Your task to perform on an android device: open sync settings in chrome Image 0: 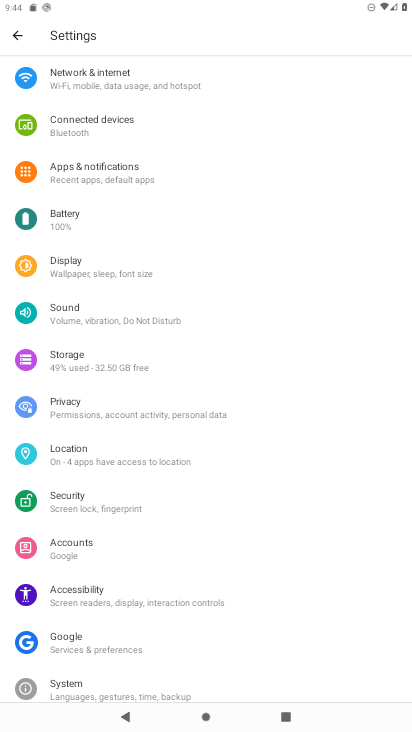
Step 0: press home button
Your task to perform on an android device: open sync settings in chrome Image 1: 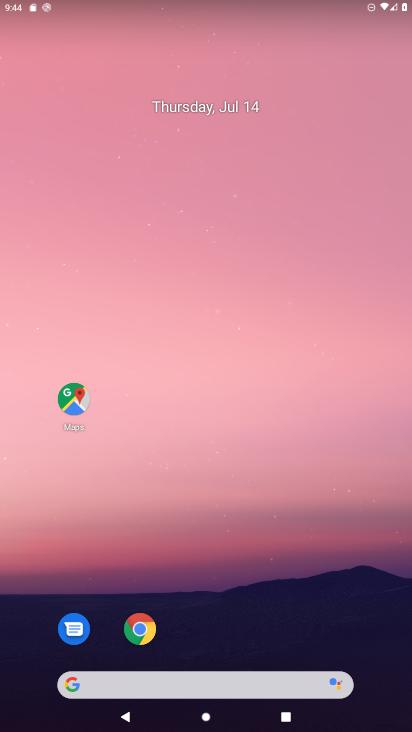
Step 1: drag from (221, 642) to (314, 102)
Your task to perform on an android device: open sync settings in chrome Image 2: 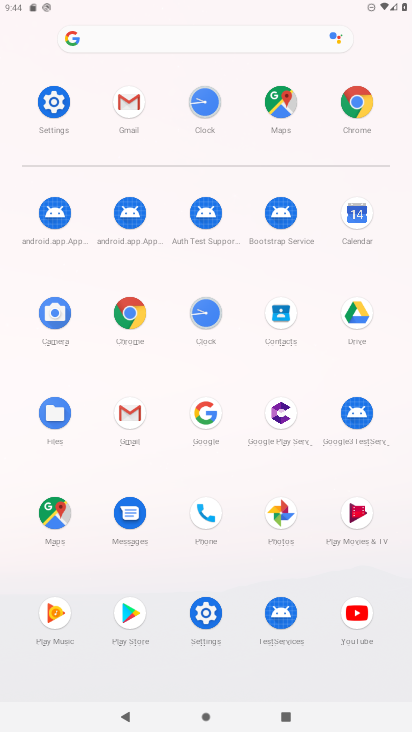
Step 2: click (136, 299)
Your task to perform on an android device: open sync settings in chrome Image 3: 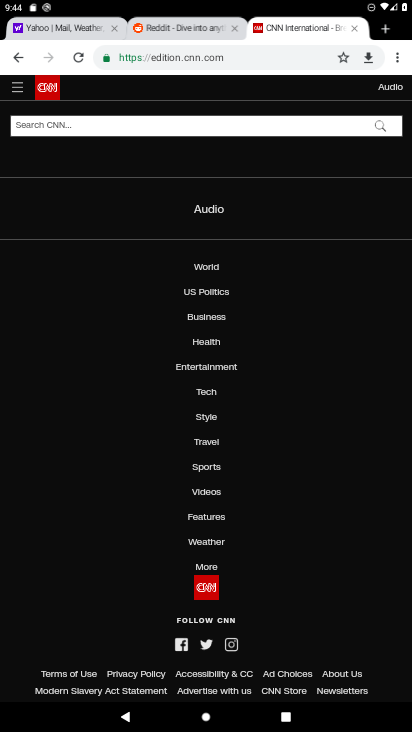
Step 3: drag from (399, 57) to (269, 380)
Your task to perform on an android device: open sync settings in chrome Image 4: 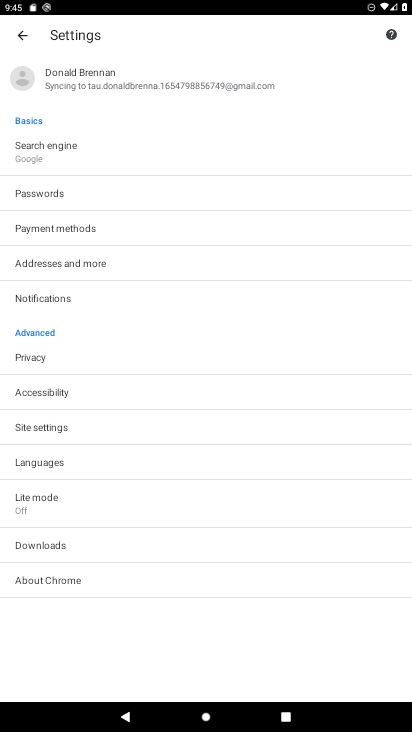
Step 4: click (40, 76)
Your task to perform on an android device: open sync settings in chrome Image 5: 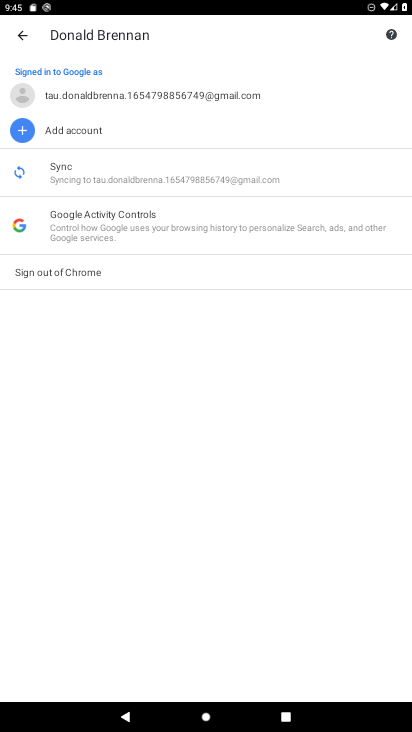
Step 5: click (75, 161)
Your task to perform on an android device: open sync settings in chrome Image 6: 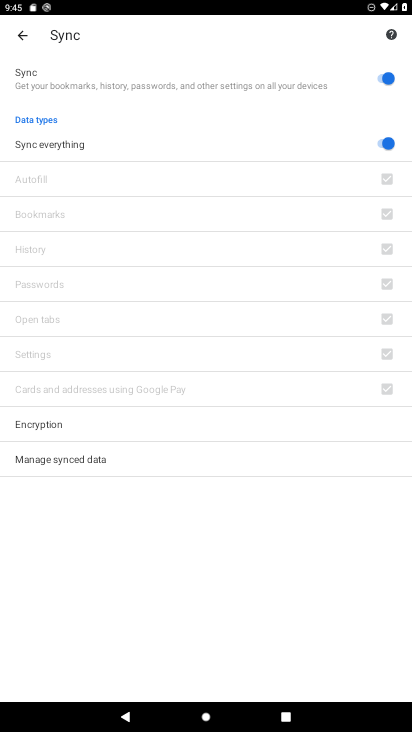
Step 6: task complete